Your task to perform on an android device: toggle wifi Image 0: 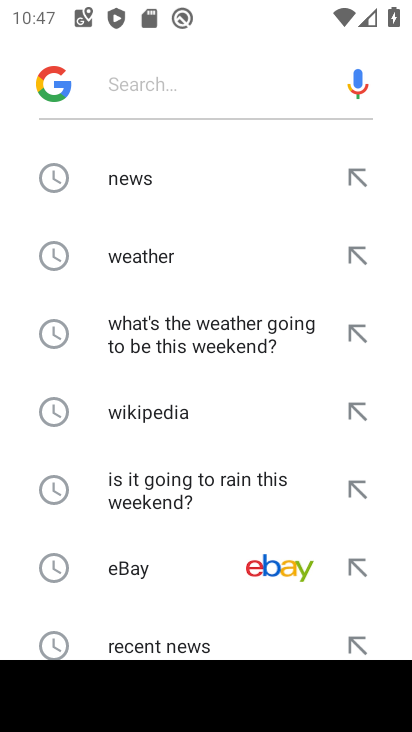
Step 0: press back button
Your task to perform on an android device: toggle wifi Image 1: 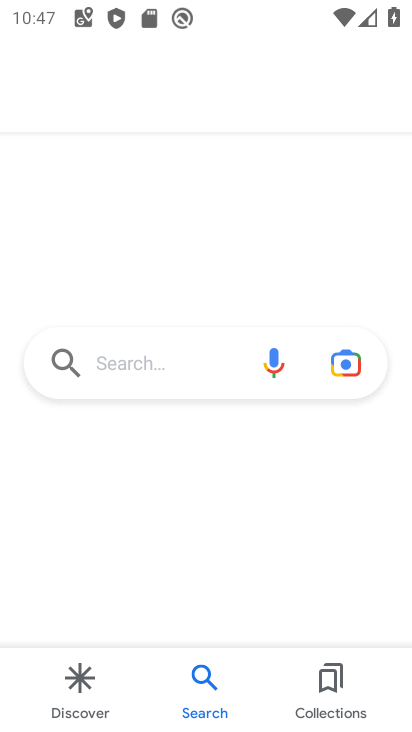
Step 1: press back button
Your task to perform on an android device: toggle wifi Image 2: 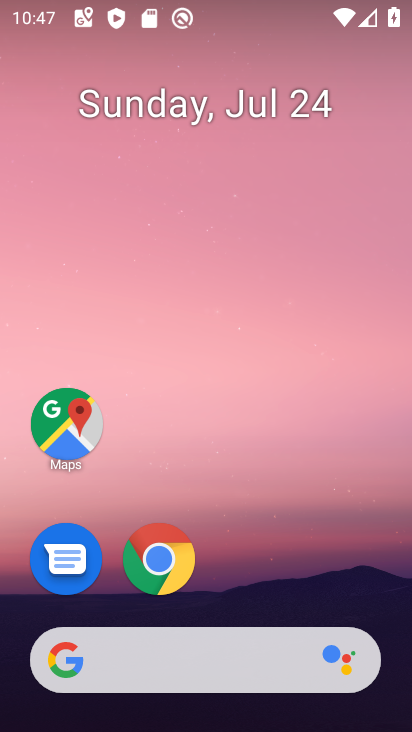
Step 2: drag from (145, 5) to (158, 647)
Your task to perform on an android device: toggle wifi Image 3: 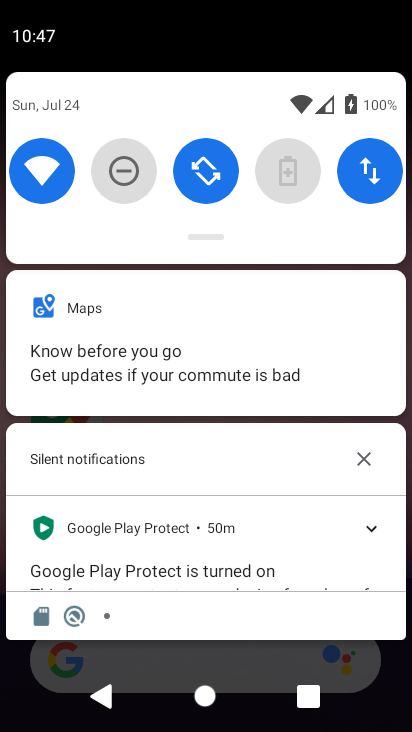
Step 3: click (47, 171)
Your task to perform on an android device: toggle wifi Image 4: 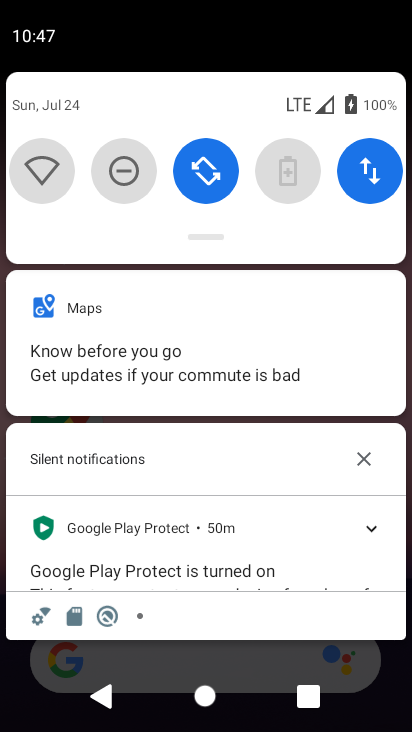
Step 4: task complete